Your task to perform on an android device: toggle wifi Image 0: 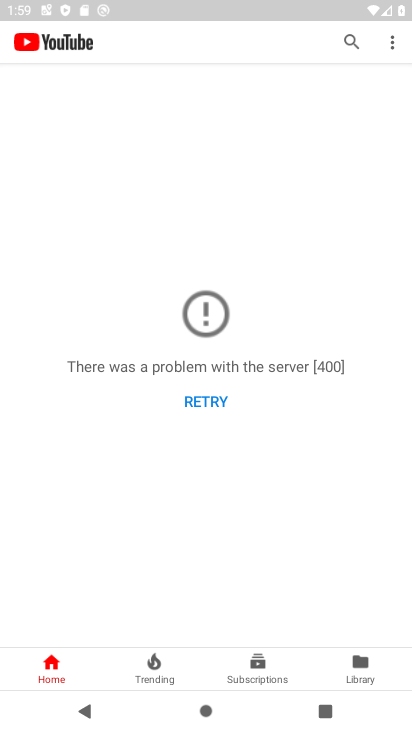
Step 0: press home button
Your task to perform on an android device: toggle wifi Image 1: 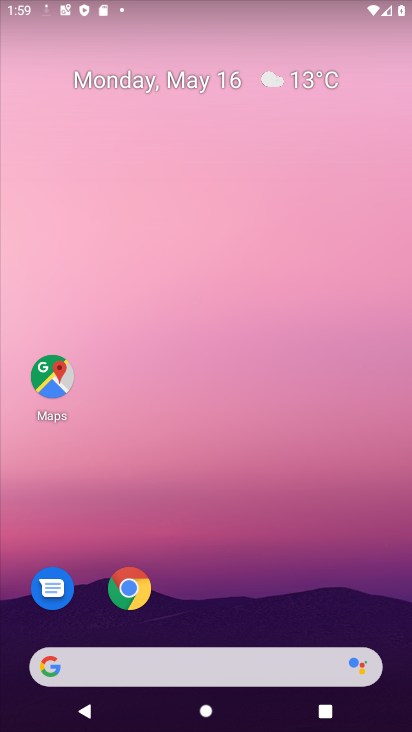
Step 1: drag from (231, 659) to (338, 59)
Your task to perform on an android device: toggle wifi Image 2: 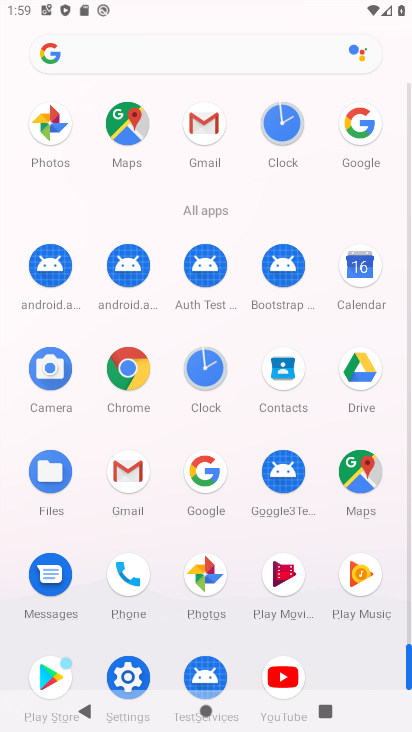
Step 2: click (120, 675)
Your task to perform on an android device: toggle wifi Image 3: 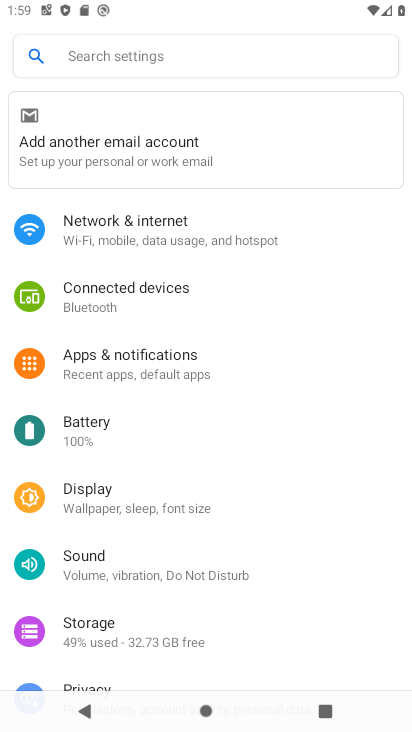
Step 3: click (254, 223)
Your task to perform on an android device: toggle wifi Image 4: 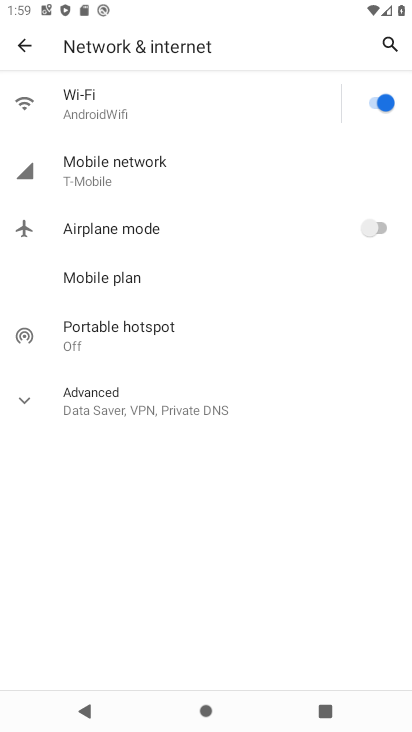
Step 4: click (386, 103)
Your task to perform on an android device: toggle wifi Image 5: 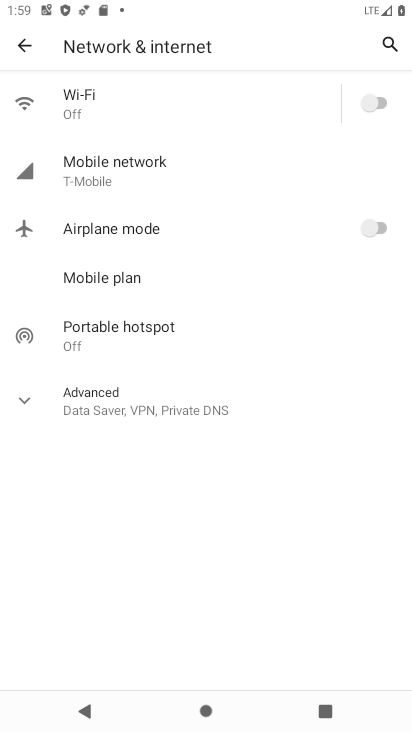
Step 5: task complete